Your task to perform on an android device: Search for seafood restaurants on Google Maps Image 0: 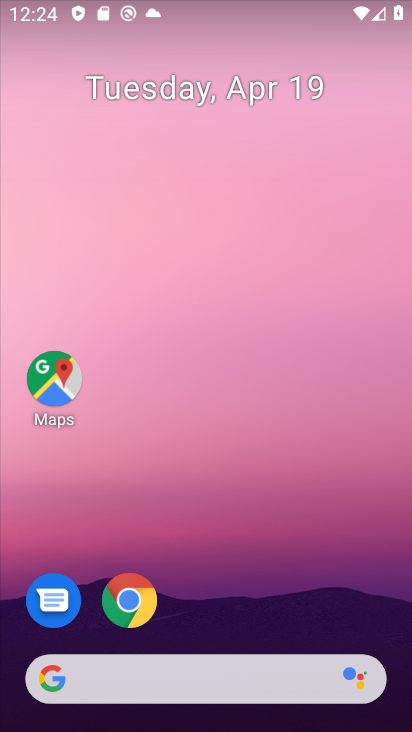
Step 0: drag from (209, 651) to (186, 99)
Your task to perform on an android device: Search for seafood restaurants on Google Maps Image 1: 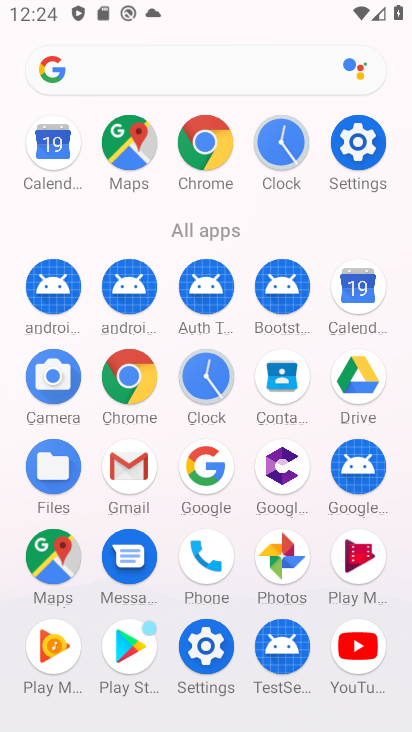
Step 1: click (49, 552)
Your task to perform on an android device: Search for seafood restaurants on Google Maps Image 2: 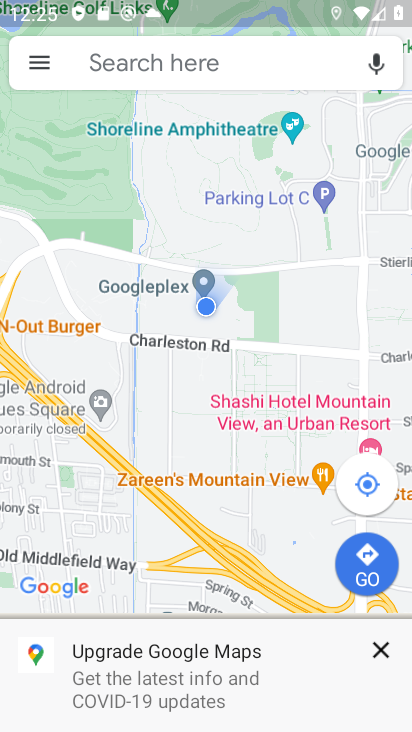
Step 2: click (212, 62)
Your task to perform on an android device: Search for seafood restaurants on Google Maps Image 3: 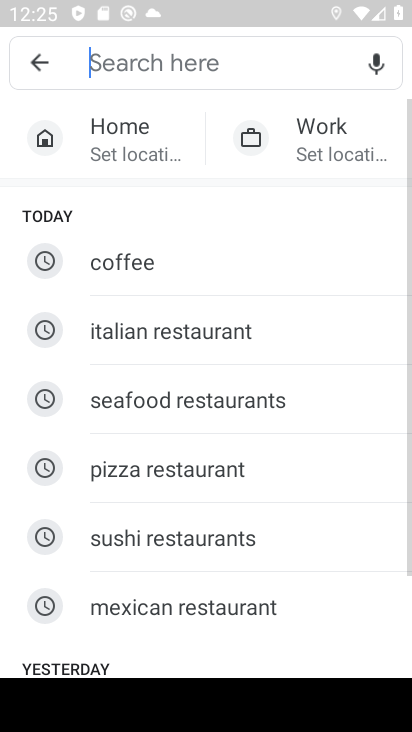
Step 3: click (171, 405)
Your task to perform on an android device: Search for seafood restaurants on Google Maps Image 4: 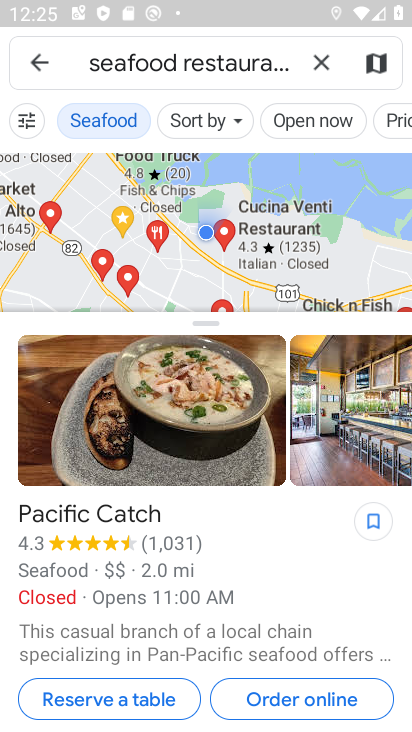
Step 4: task complete